Your task to perform on an android device: Open notification settings Image 0: 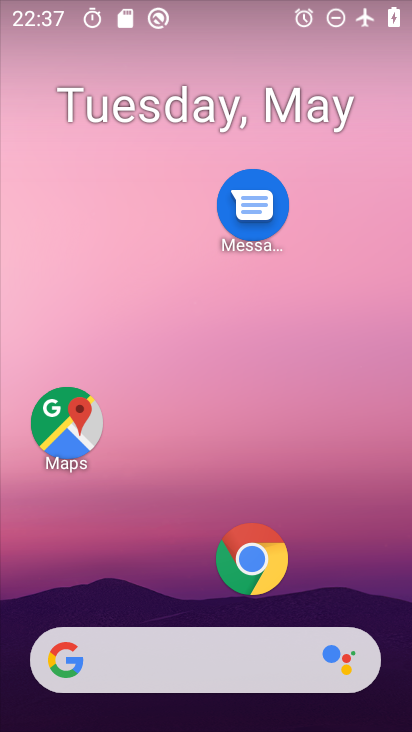
Step 0: drag from (188, 606) to (194, 226)
Your task to perform on an android device: Open notification settings Image 1: 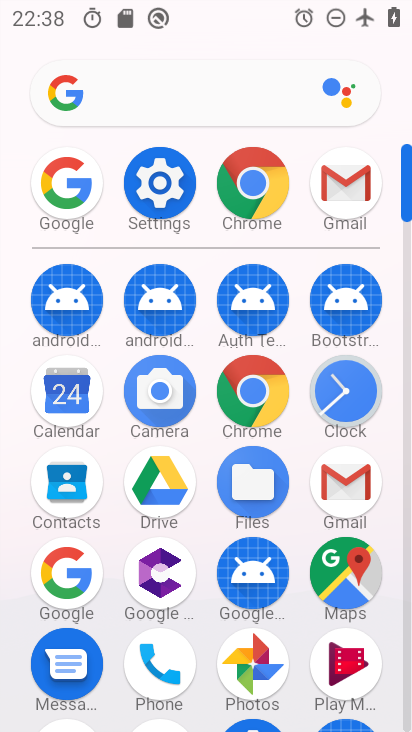
Step 1: click (144, 183)
Your task to perform on an android device: Open notification settings Image 2: 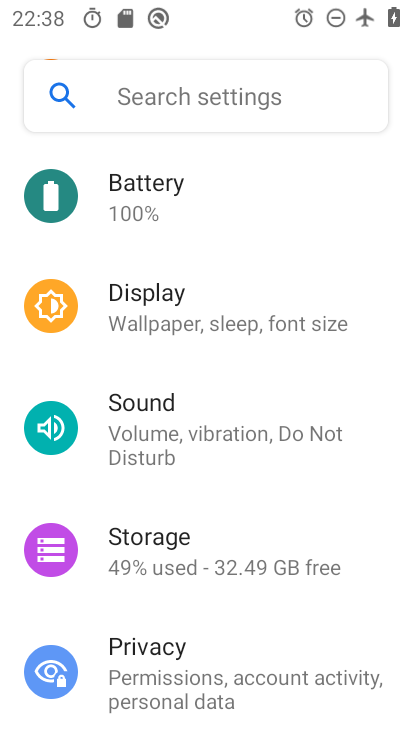
Step 2: drag from (238, 247) to (257, 631)
Your task to perform on an android device: Open notification settings Image 3: 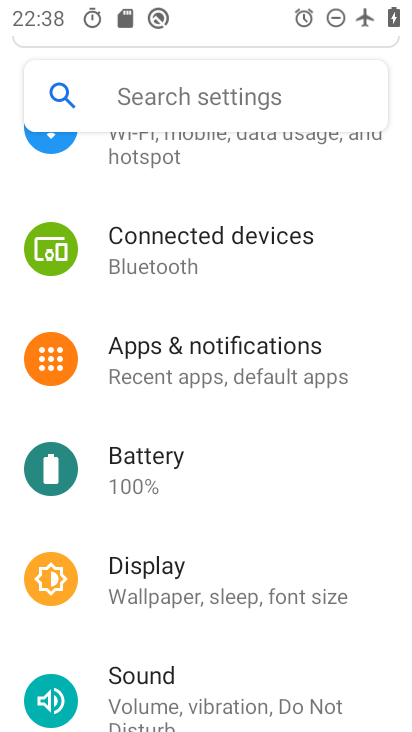
Step 3: click (236, 339)
Your task to perform on an android device: Open notification settings Image 4: 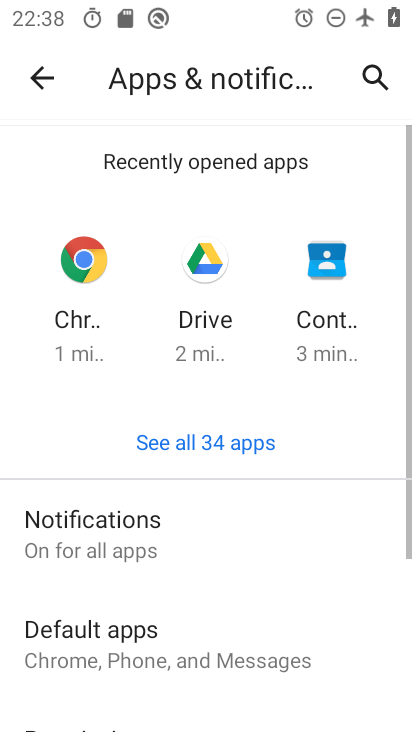
Step 4: click (183, 538)
Your task to perform on an android device: Open notification settings Image 5: 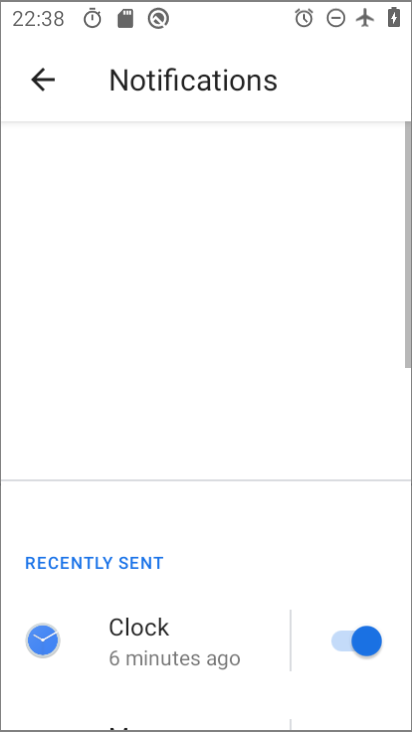
Step 5: task complete